Your task to perform on an android device: What's the weather going to be this weekend? Image 0: 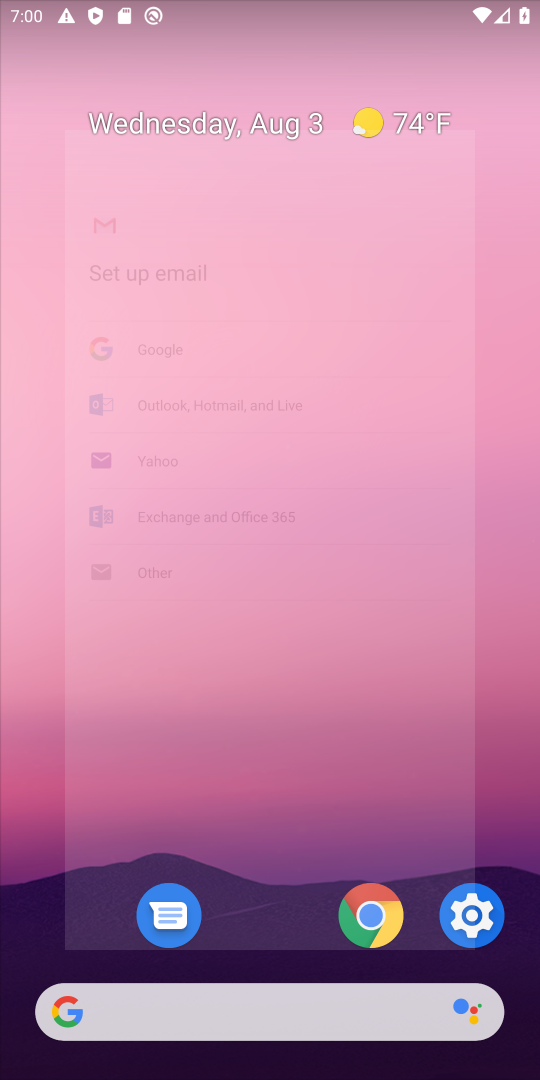
Step 0: press home button
Your task to perform on an android device: What's the weather going to be this weekend? Image 1: 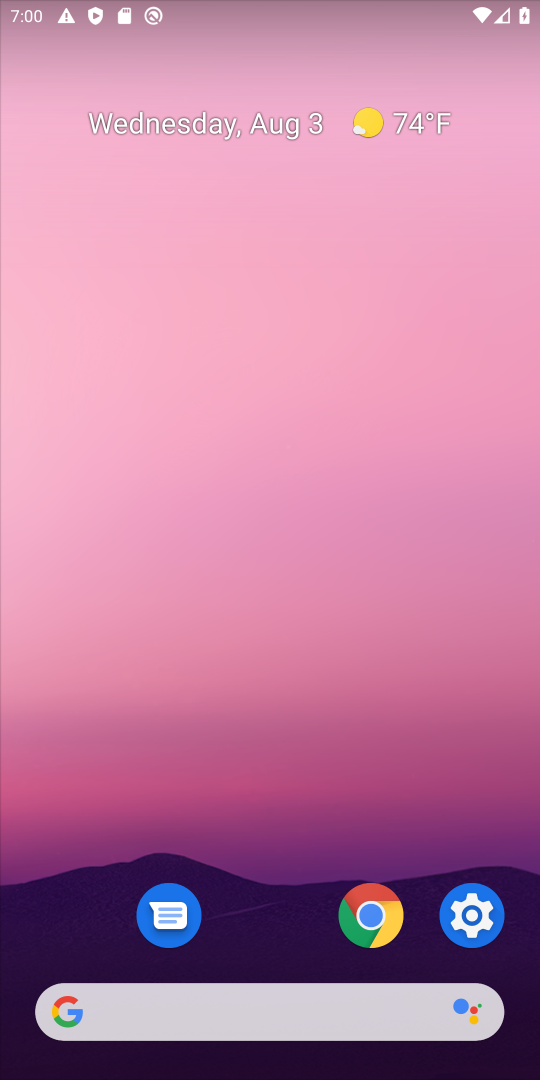
Step 1: click (274, 1005)
Your task to perform on an android device: What's the weather going to be this weekend? Image 2: 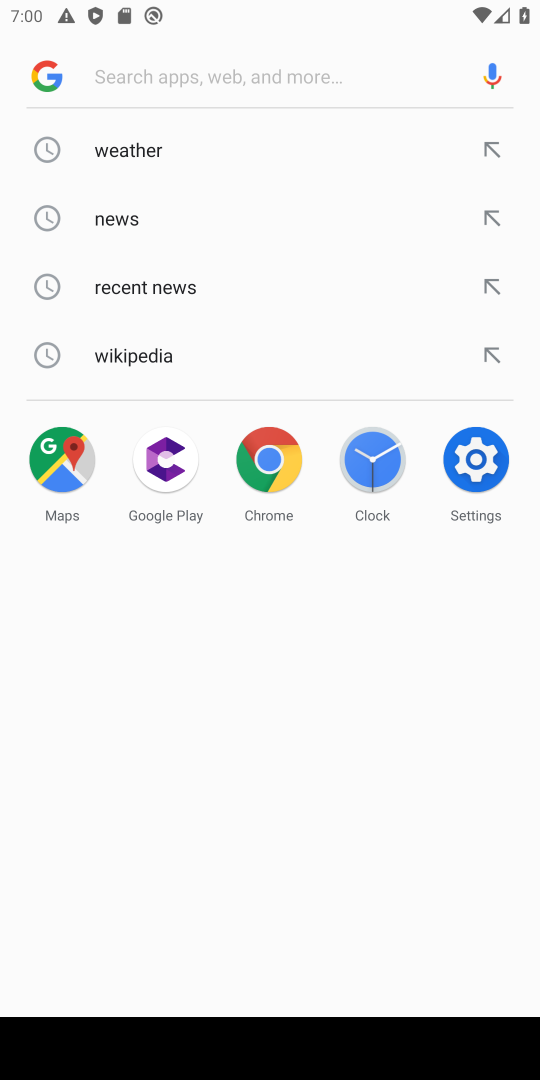
Step 2: drag from (486, 1072) to (352, 750)
Your task to perform on an android device: What's the weather going to be this weekend? Image 3: 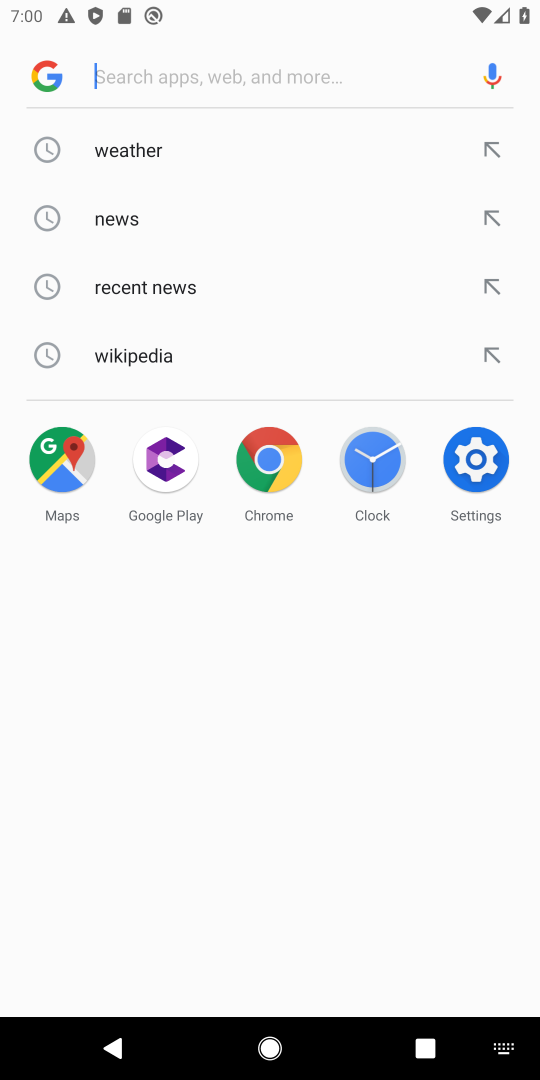
Step 3: click (507, 1060)
Your task to perform on an android device: What's the weather going to be this weekend? Image 4: 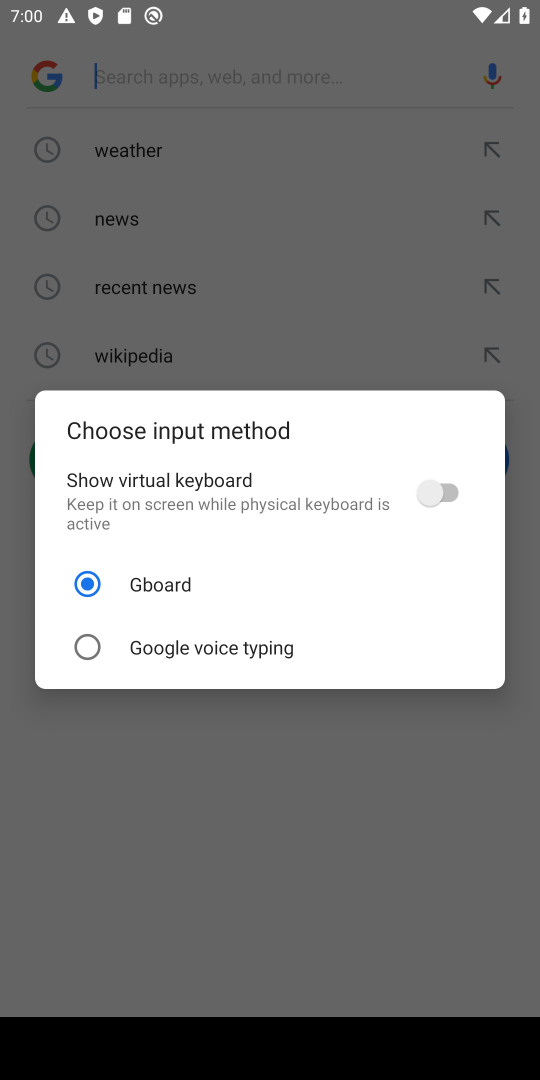
Step 4: click (455, 492)
Your task to perform on an android device: What's the weather going to be this weekend? Image 5: 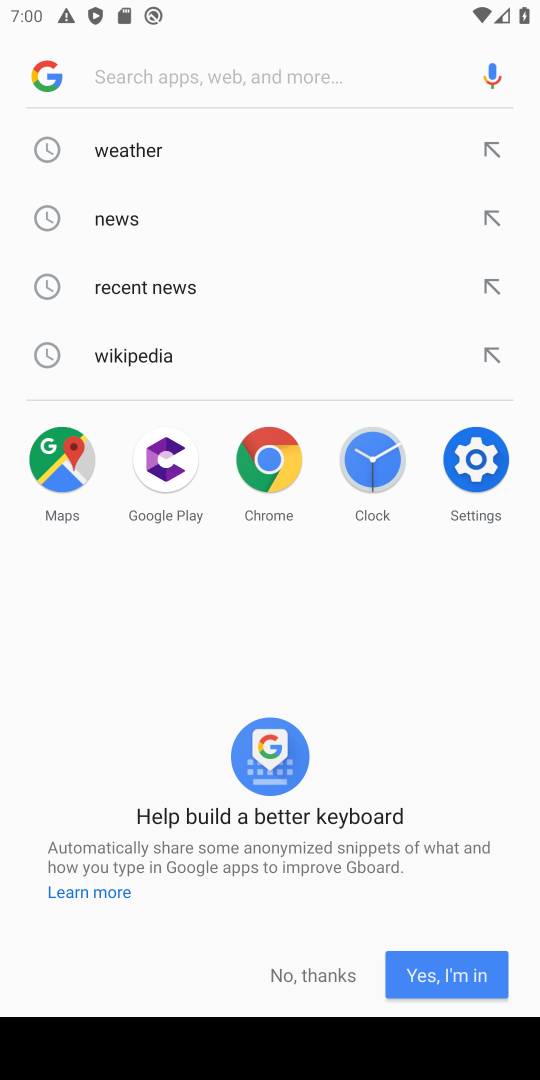
Step 5: click (309, 970)
Your task to perform on an android device: What's the weather going to be this weekend? Image 6: 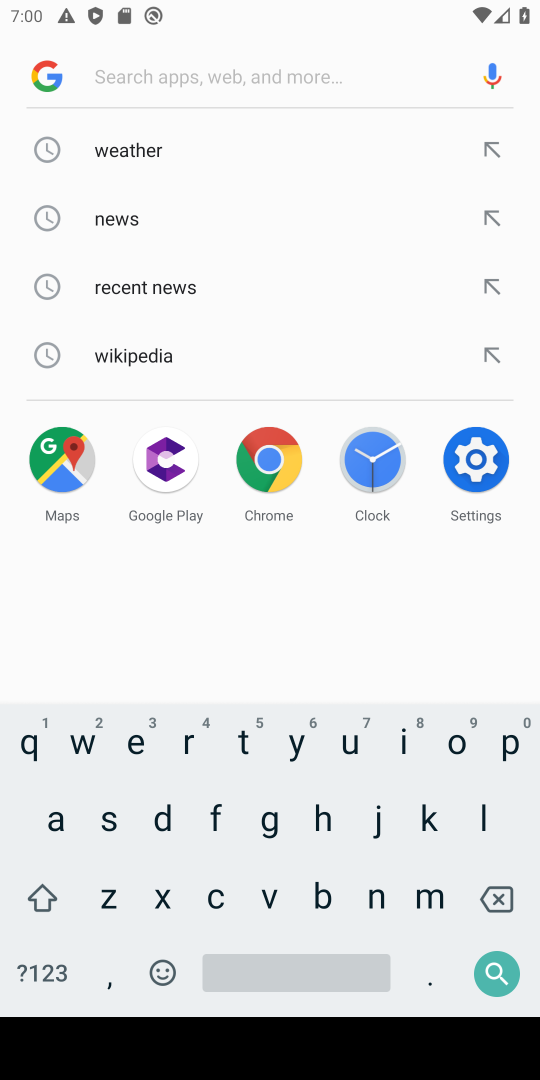
Step 6: click (94, 749)
Your task to perform on an android device: What's the weather going to be this weekend? Image 7: 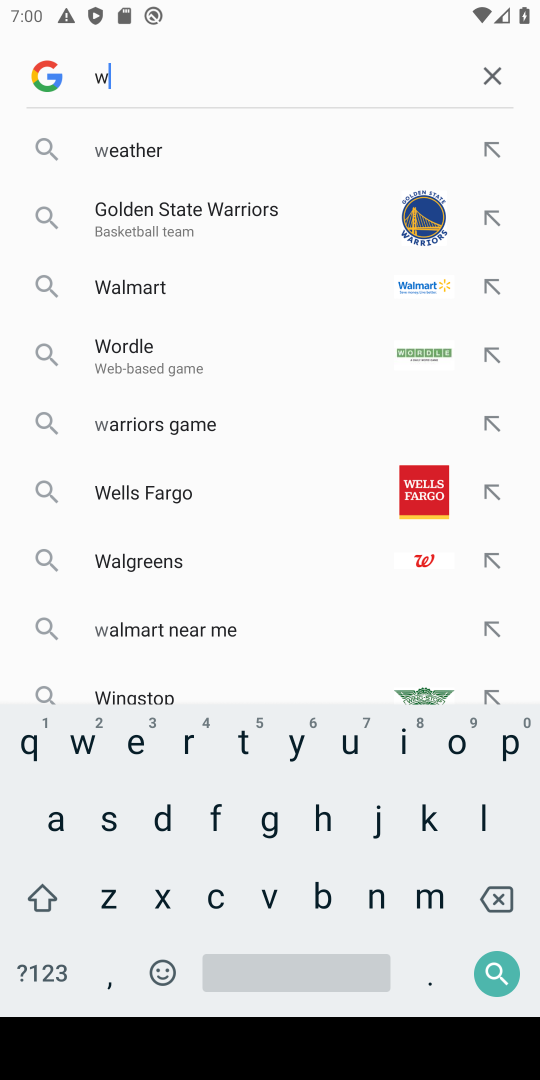
Step 7: click (319, 816)
Your task to perform on an android device: What's the weather going to be this weekend? Image 8: 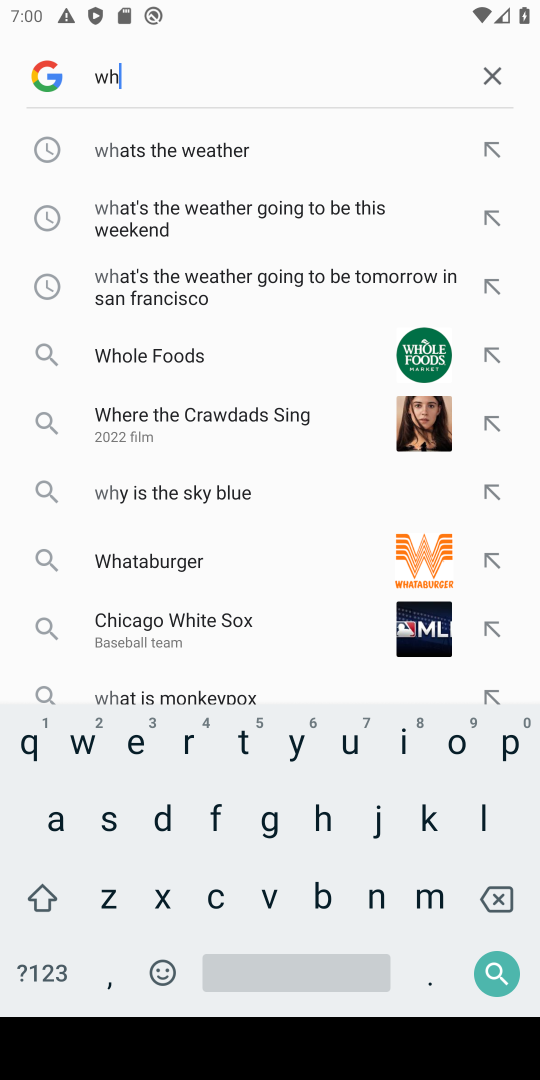
Step 8: click (184, 231)
Your task to perform on an android device: What's the weather going to be this weekend? Image 9: 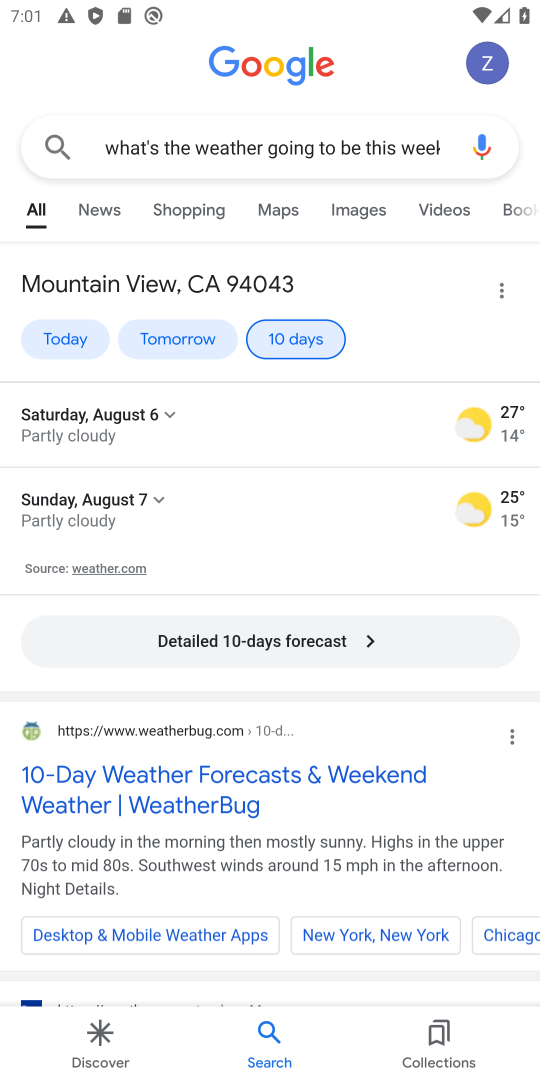
Step 9: task complete